Your task to perform on an android device: set the timer Image 0: 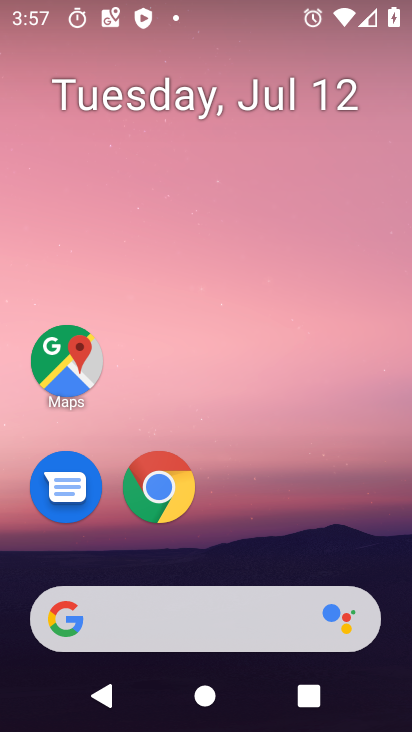
Step 0: drag from (161, 591) to (258, 146)
Your task to perform on an android device: set the timer Image 1: 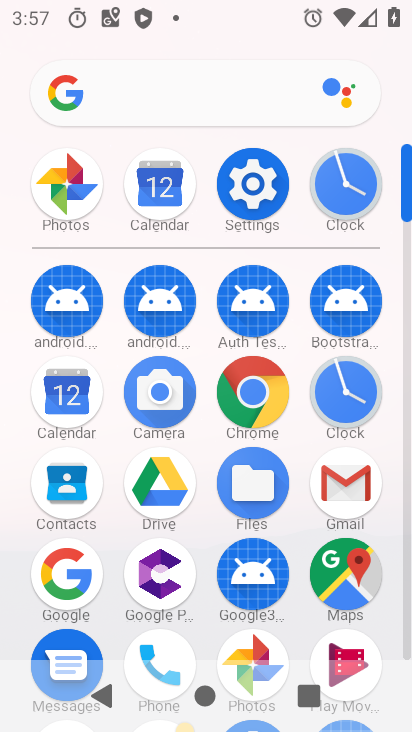
Step 1: click (343, 391)
Your task to perform on an android device: set the timer Image 2: 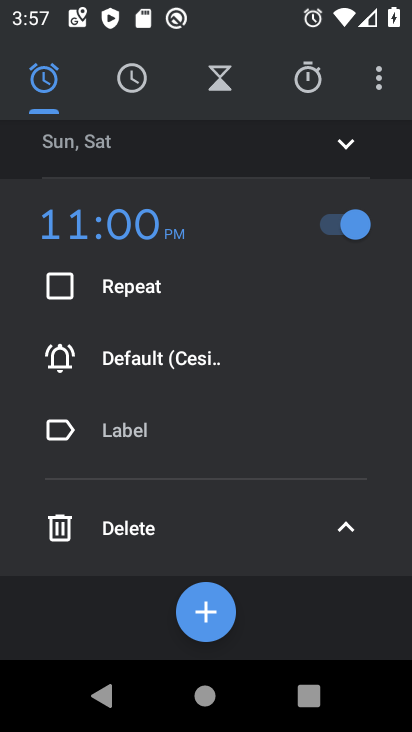
Step 2: click (226, 85)
Your task to perform on an android device: set the timer Image 3: 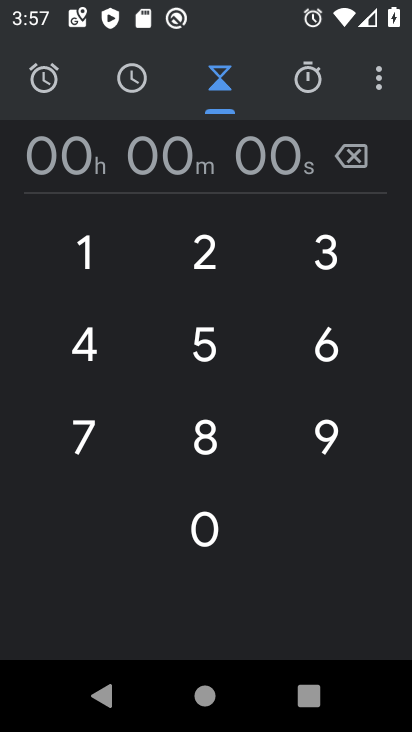
Step 3: click (207, 539)
Your task to perform on an android device: set the timer Image 4: 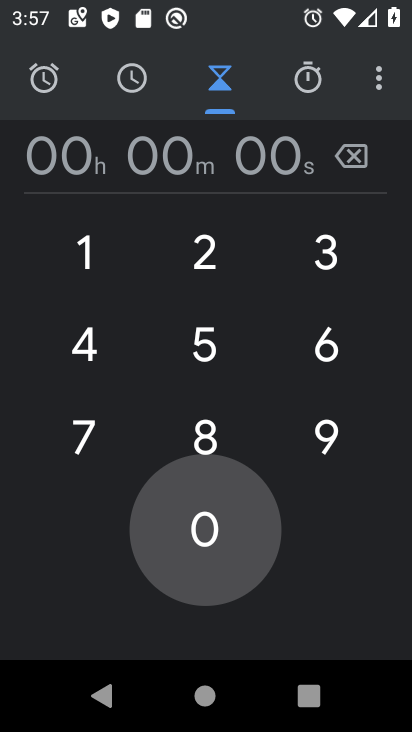
Step 4: click (207, 539)
Your task to perform on an android device: set the timer Image 5: 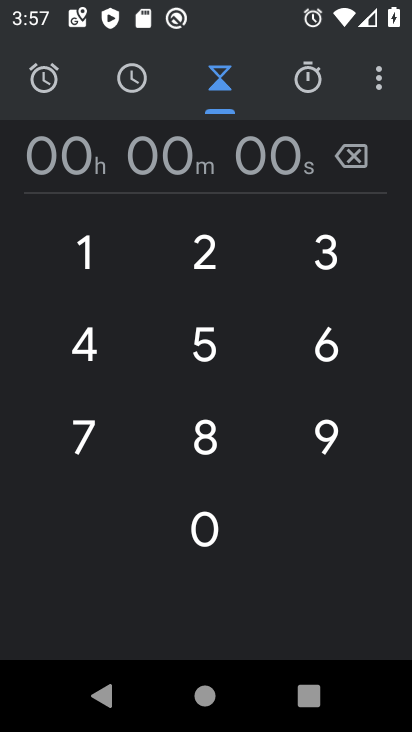
Step 5: click (207, 539)
Your task to perform on an android device: set the timer Image 6: 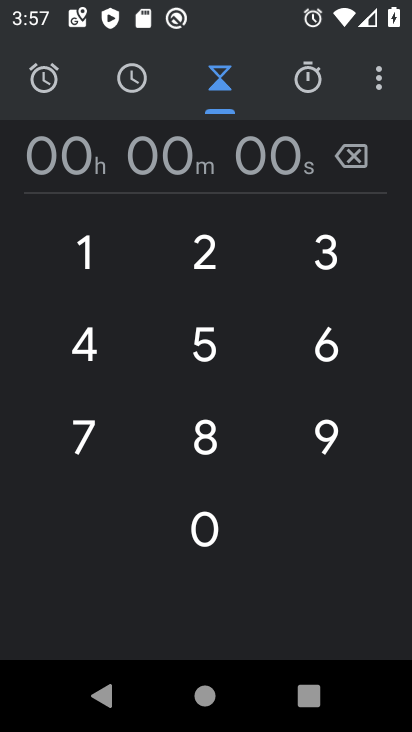
Step 6: click (89, 171)
Your task to perform on an android device: set the timer Image 7: 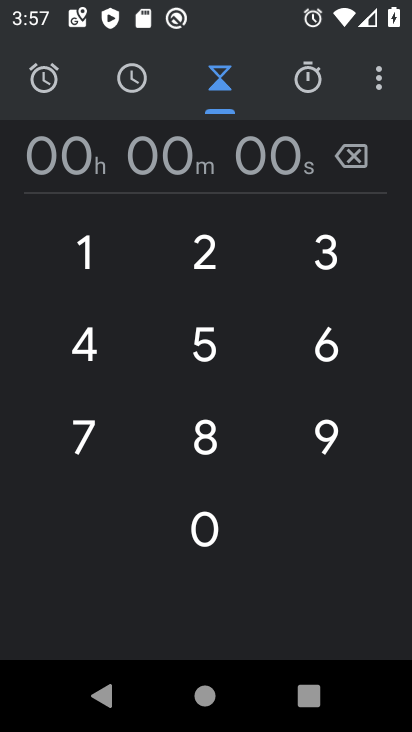
Step 7: click (213, 530)
Your task to perform on an android device: set the timer Image 8: 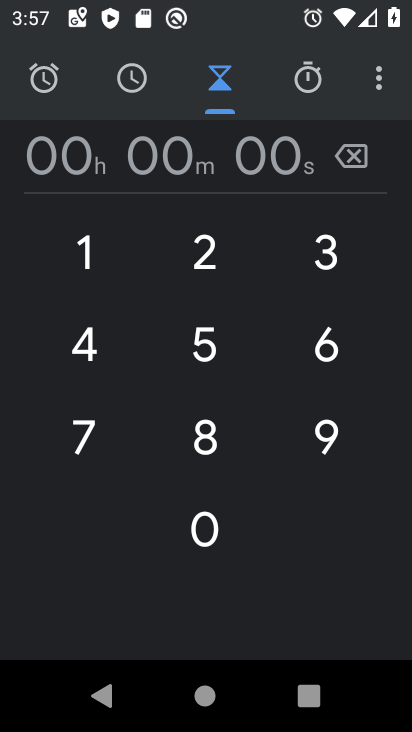
Step 8: click (213, 530)
Your task to perform on an android device: set the timer Image 9: 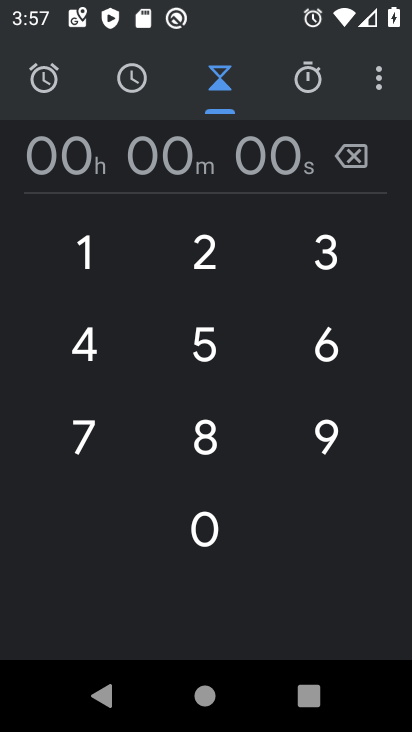
Step 9: click (203, 523)
Your task to perform on an android device: set the timer Image 10: 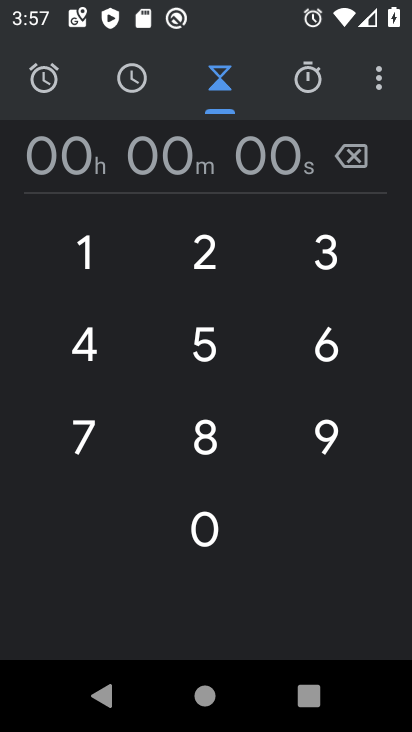
Step 10: click (78, 246)
Your task to perform on an android device: set the timer Image 11: 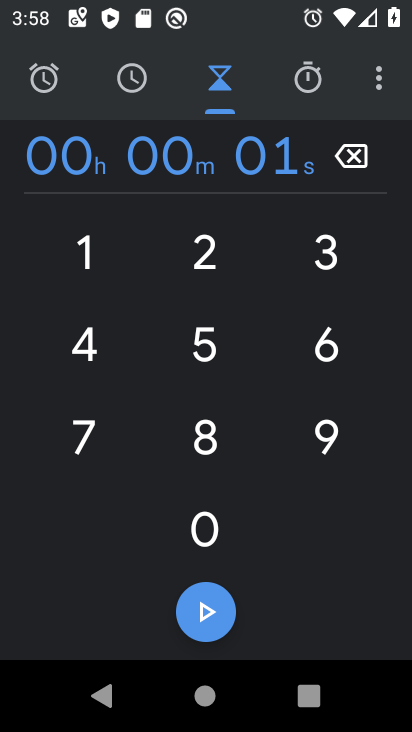
Step 11: click (210, 530)
Your task to perform on an android device: set the timer Image 12: 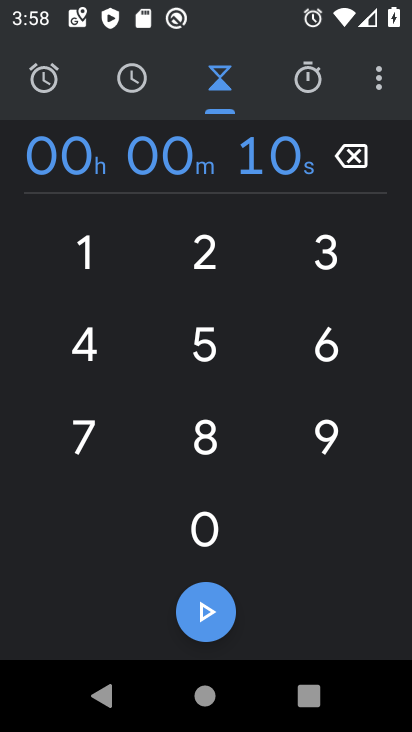
Step 12: click (202, 259)
Your task to perform on an android device: set the timer Image 13: 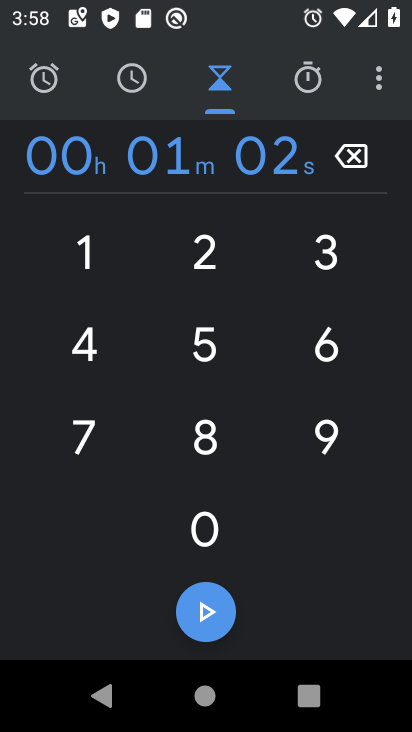
Step 13: click (203, 531)
Your task to perform on an android device: set the timer Image 14: 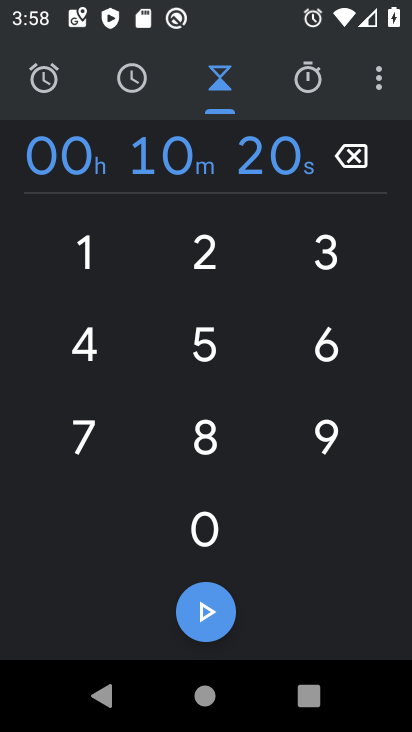
Step 14: click (327, 250)
Your task to perform on an android device: set the timer Image 15: 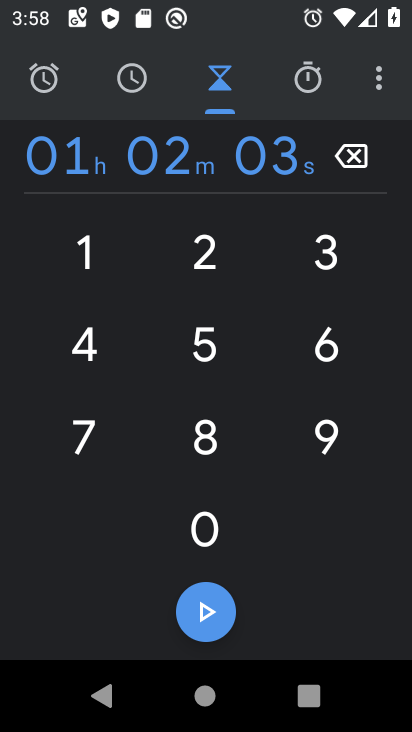
Step 15: click (208, 610)
Your task to perform on an android device: set the timer Image 16: 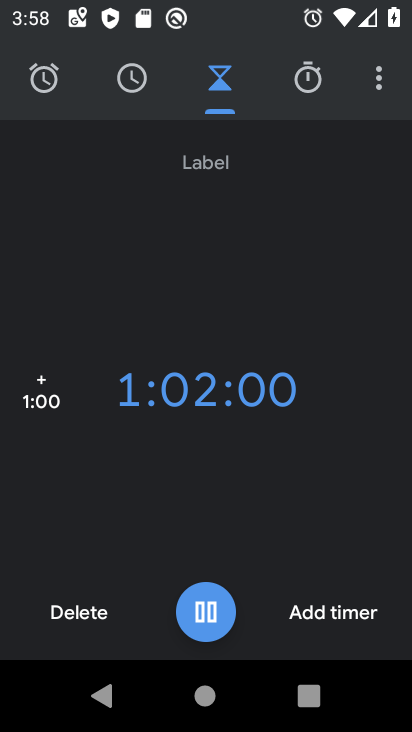
Step 16: task complete